Your task to perform on an android device: Open calendar and show me the third week of next month Image 0: 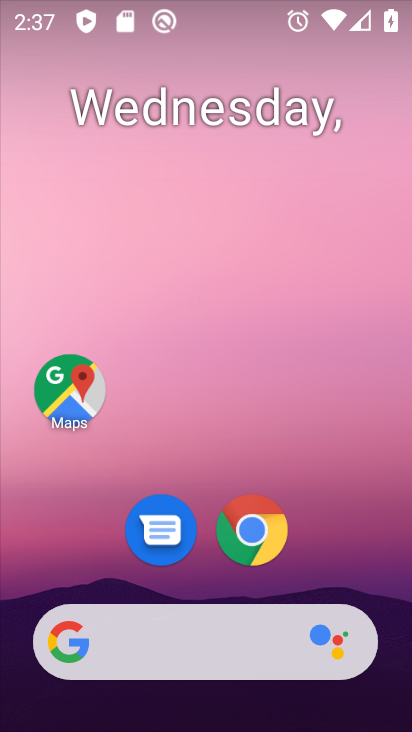
Step 0: drag from (221, 621) to (208, 13)
Your task to perform on an android device: Open calendar and show me the third week of next month Image 1: 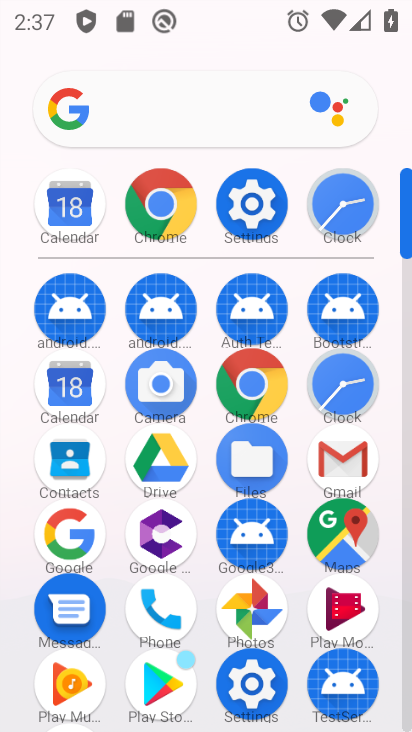
Step 1: click (65, 389)
Your task to perform on an android device: Open calendar and show me the third week of next month Image 2: 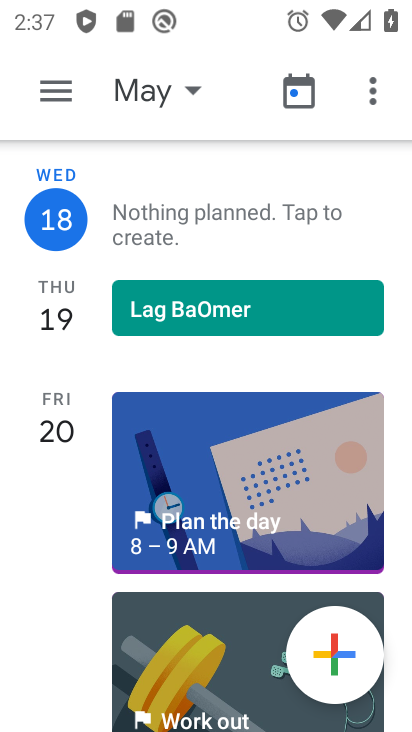
Step 2: click (40, 89)
Your task to perform on an android device: Open calendar and show me the third week of next month Image 3: 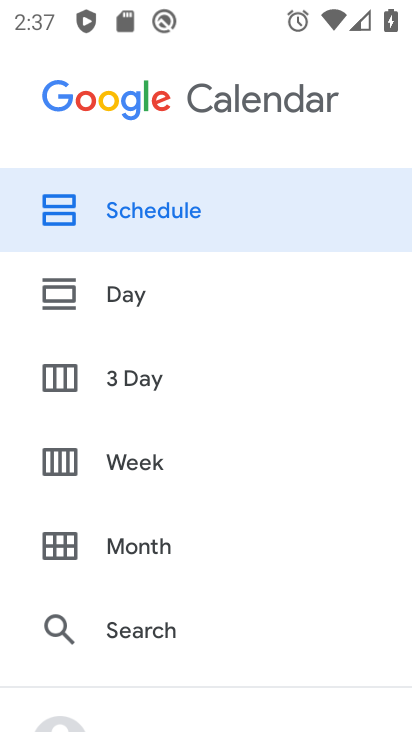
Step 3: click (192, 552)
Your task to perform on an android device: Open calendar and show me the third week of next month Image 4: 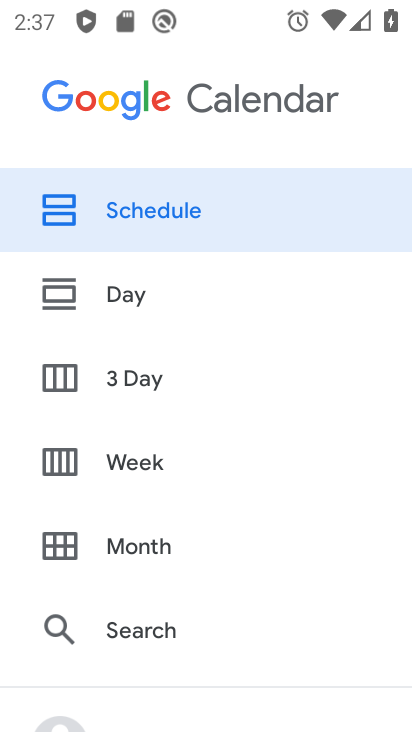
Step 4: click (122, 546)
Your task to perform on an android device: Open calendar and show me the third week of next month Image 5: 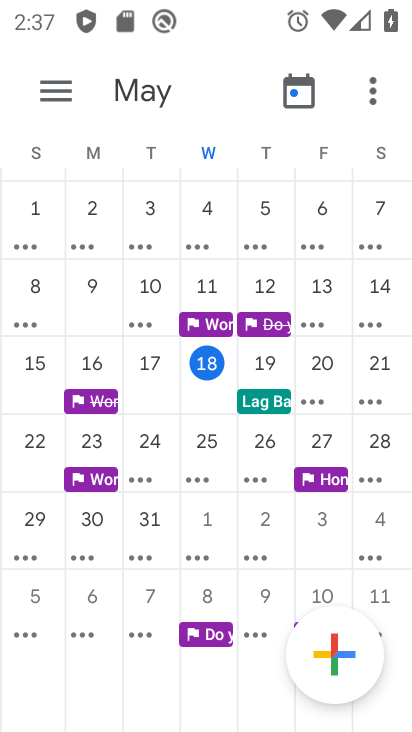
Step 5: task complete